Your task to perform on an android device: turn on showing notifications on the lock screen Image 0: 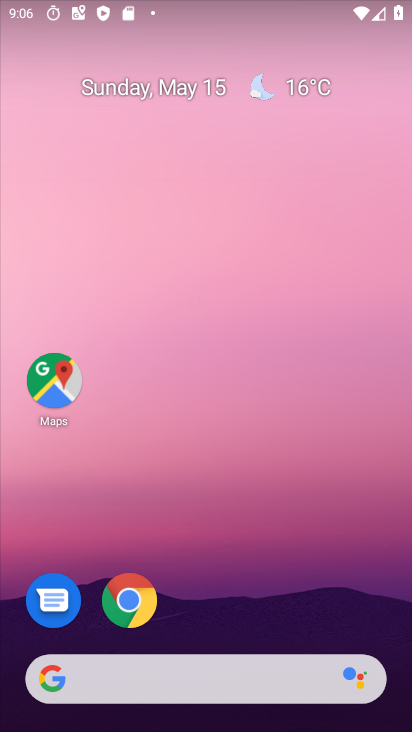
Step 0: drag from (257, 606) to (184, 133)
Your task to perform on an android device: turn on showing notifications on the lock screen Image 1: 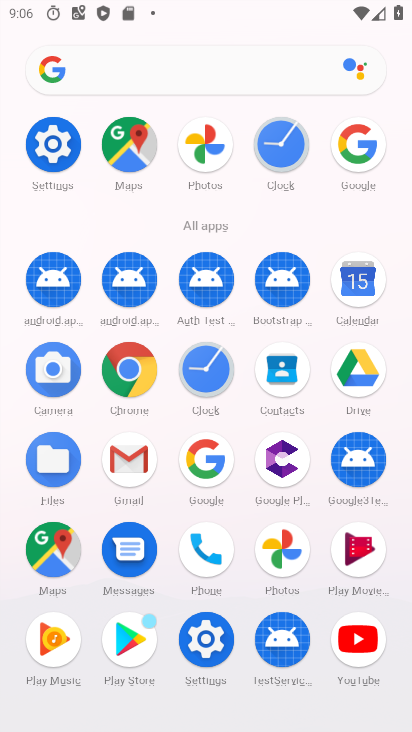
Step 1: click (59, 146)
Your task to perform on an android device: turn on showing notifications on the lock screen Image 2: 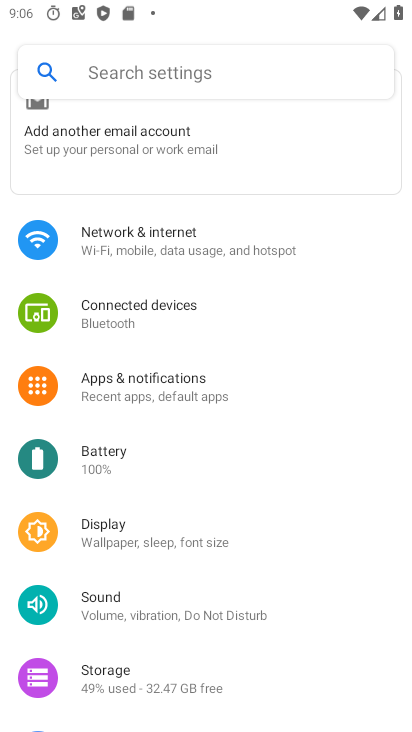
Step 2: click (175, 385)
Your task to perform on an android device: turn on showing notifications on the lock screen Image 3: 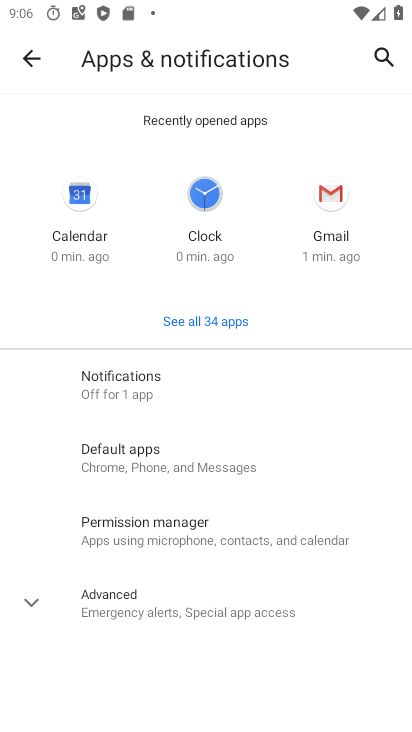
Step 3: click (137, 381)
Your task to perform on an android device: turn on showing notifications on the lock screen Image 4: 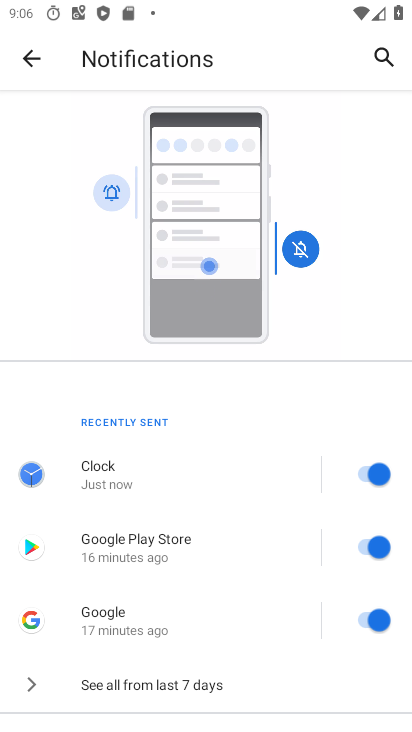
Step 4: drag from (233, 625) to (241, 203)
Your task to perform on an android device: turn on showing notifications on the lock screen Image 5: 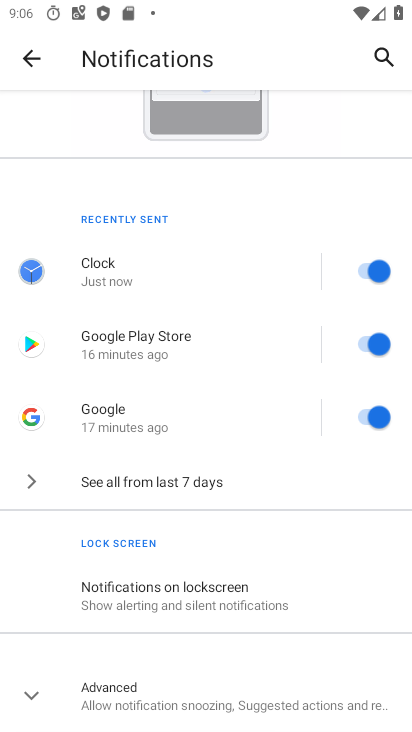
Step 5: click (153, 583)
Your task to perform on an android device: turn on showing notifications on the lock screen Image 6: 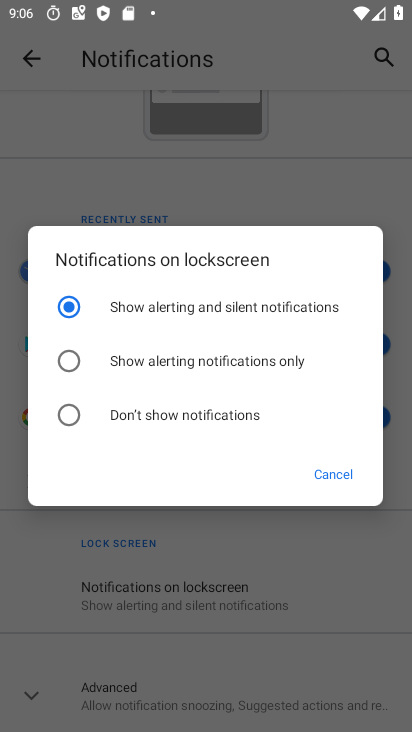
Step 6: task complete